Your task to perform on an android device: toggle notification dots Image 0: 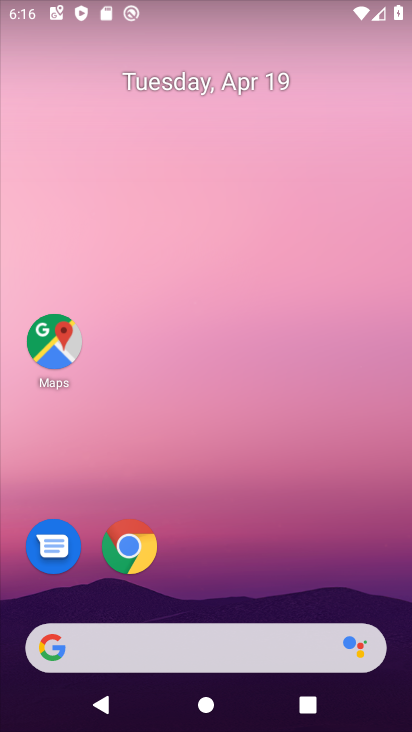
Step 0: drag from (270, 559) to (274, 72)
Your task to perform on an android device: toggle notification dots Image 1: 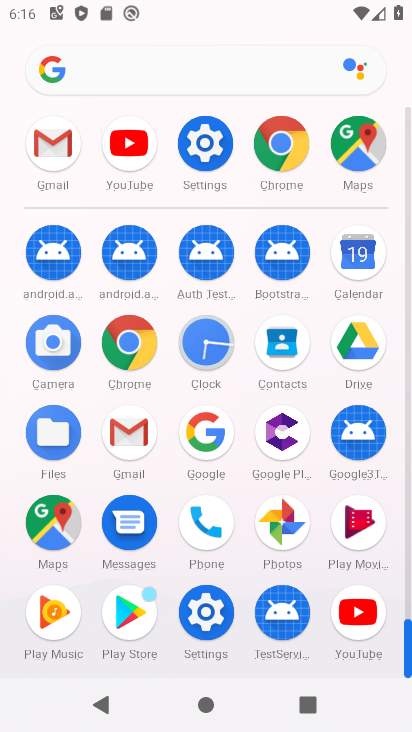
Step 1: click (203, 156)
Your task to perform on an android device: toggle notification dots Image 2: 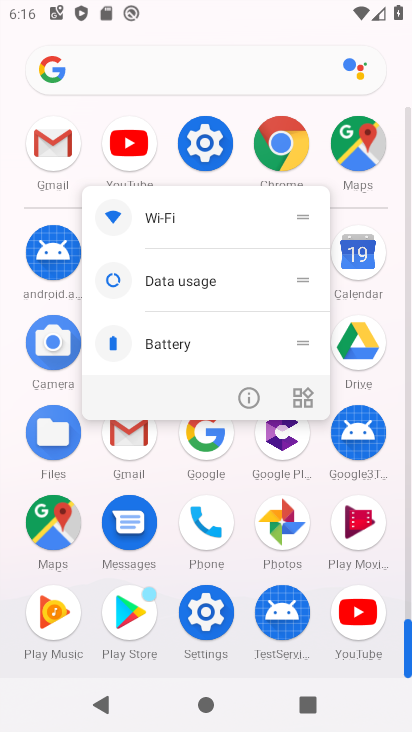
Step 2: click (195, 143)
Your task to perform on an android device: toggle notification dots Image 3: 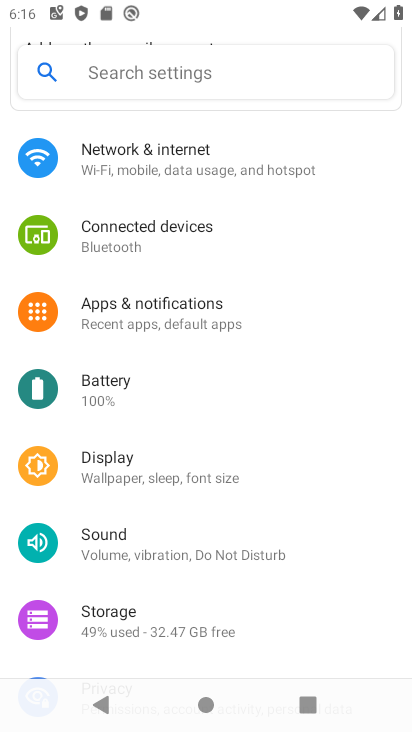
Step 3: click (206, 322)
Your task to perform on an android device: toggle notification dots Image 4: 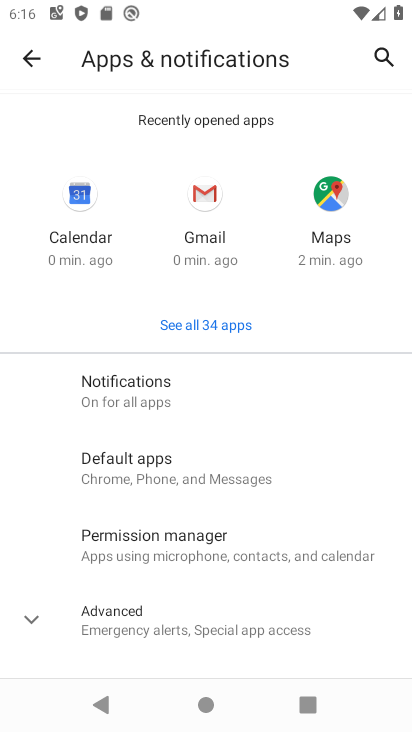
Step 4: click (163, 393)
Your task to perform on an android device: toggle notification dots Image 5: 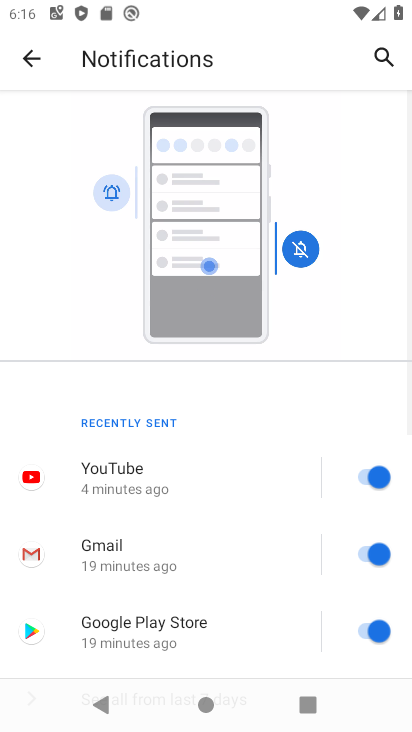
Step 5: drag from (253, 513) to (313, 18)
Your task to perform on an android device: toggle notification dots Image 6: 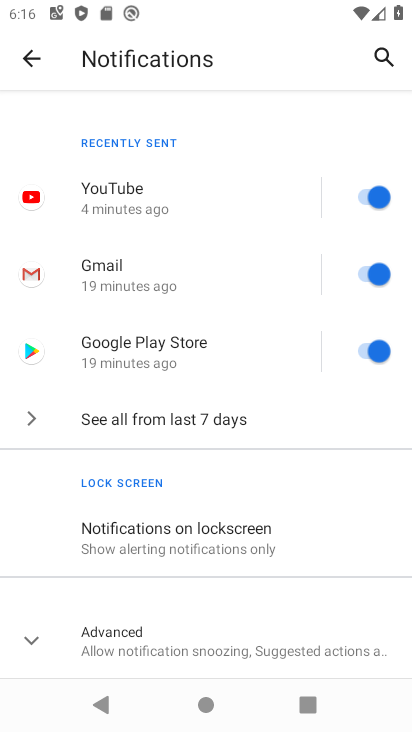
Step 6: drag from (220, 595) to (300, 171)
Your task to perform on an android device: toggle notification dots Image 7: 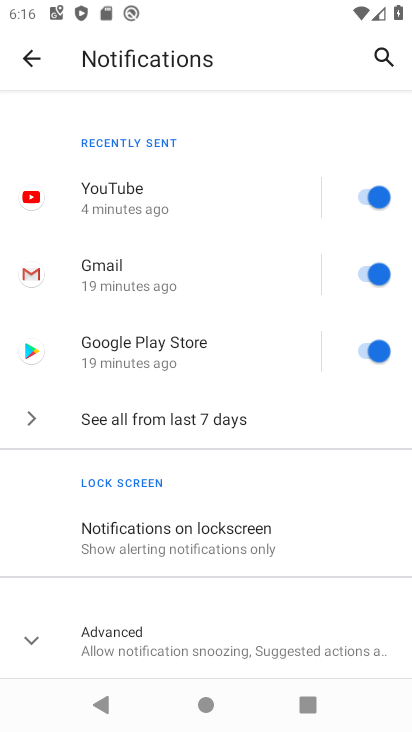
Step 7: click (129, 648)
Your task to perform on an android device: toggle notification dots Image 8: 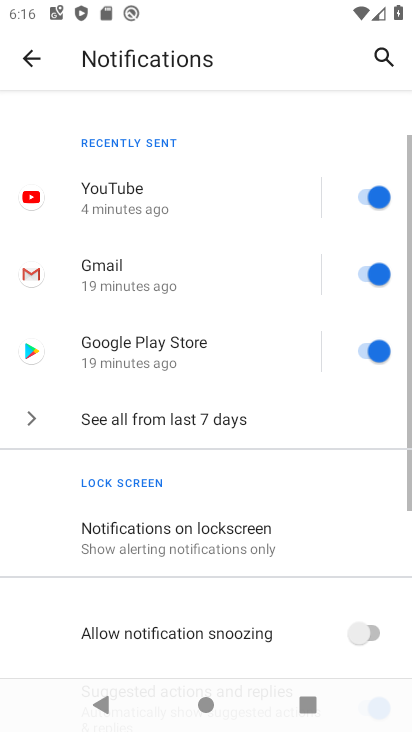
Step 8: drag from (285, 608) to (275, 131)
Your task to perform on an android device: toggle notification dots Image 9: 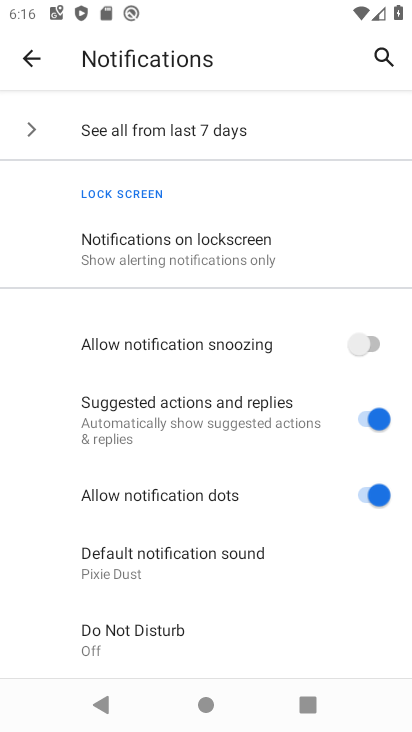
Step 9: drag from (232, 584) to (257, 216)
Your task to perform on an android device: toggle notification dots Image 10: 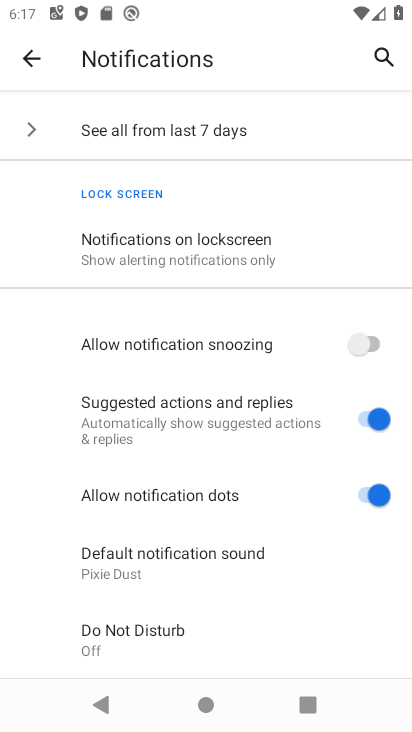
Step 10: click (246, 489)
Your task to perform on an android device: toggle notification dots Image 11: 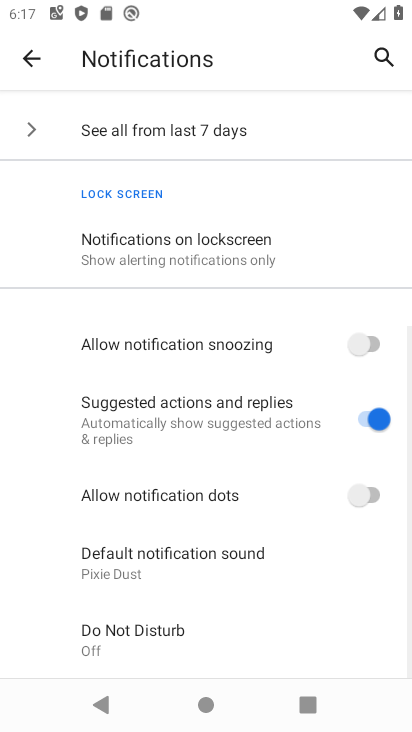
Step 11: task complete